Your task to perform on an android device: Go to Android settings Image 0: 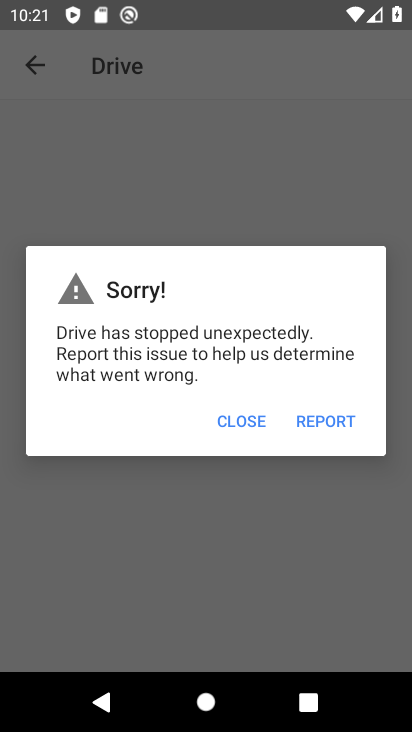
Step 0: task complete